Your task to perform on an android device: find photos in the google photos app Image 0: 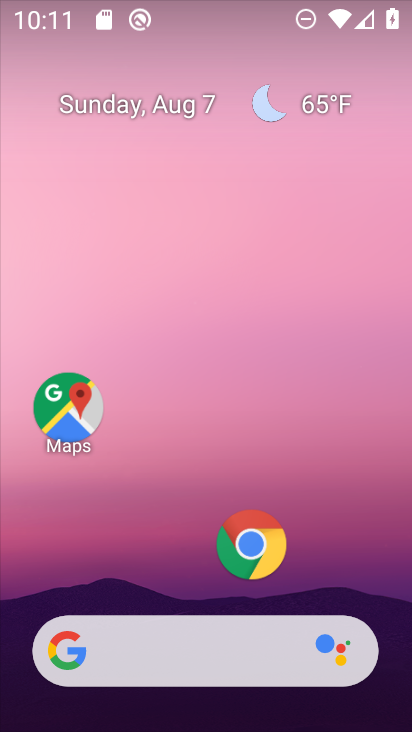
Step 0: drag from (194, 592) to (328, 40)
Your task to perform on an android device: find photos in the google photos app Image 1: 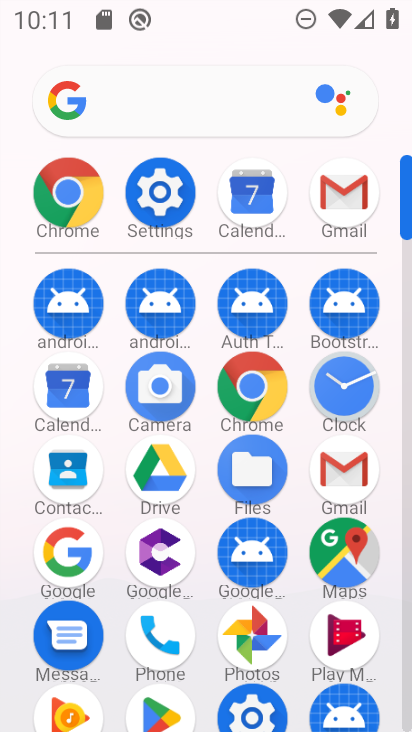
Step 1: click (251, 641)
Your task to perform on an android device: find photos in the google photos app Image 2: 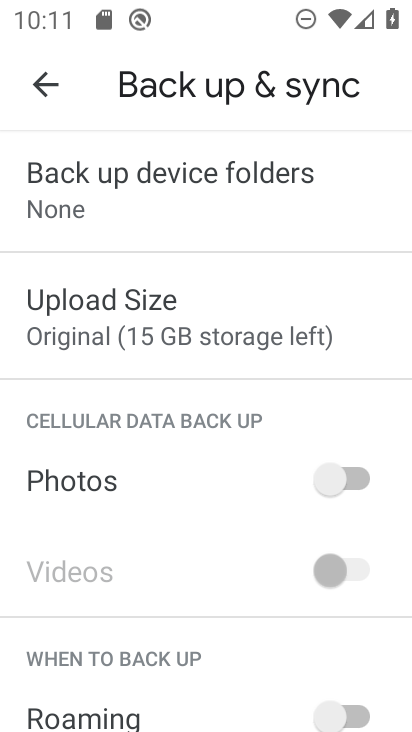
Step 2: click (33, 44)
Your task to perform on an android device: find photos in the google photos app Image 3: 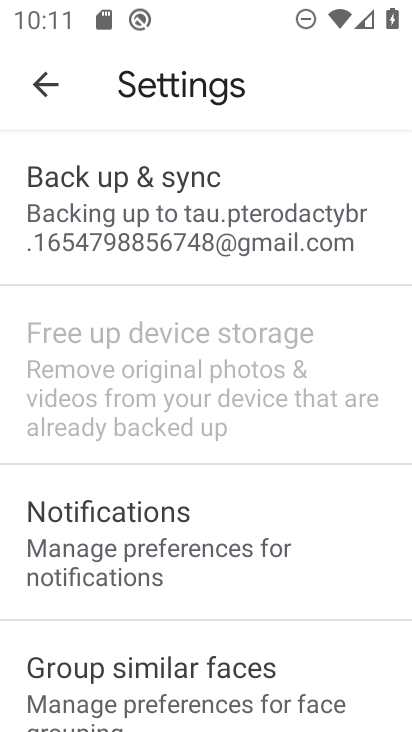
Step 3: click (45, 89)
Your task to perform on an android device: find photos in the google photos app Image 4: 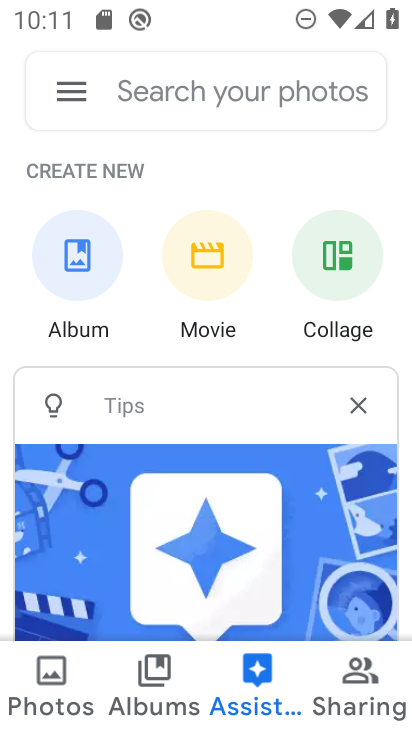
Step 4: click (78, 677)
Your task to perform on an android device: find photos in the google photos app Image 5: 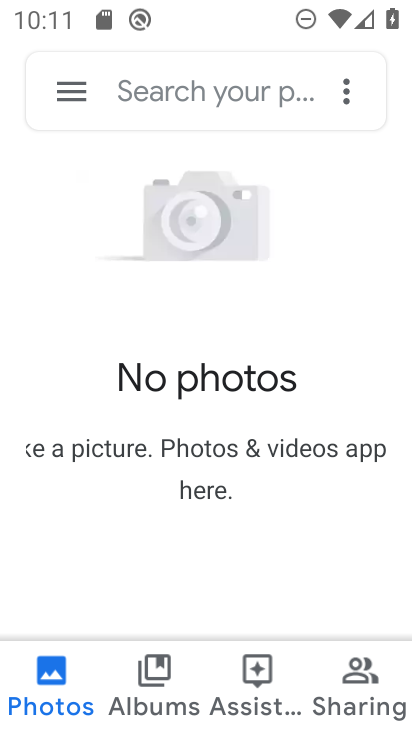
Step 5: task complete